Your task to perform on an android device: change the clock display to analog Image 0: 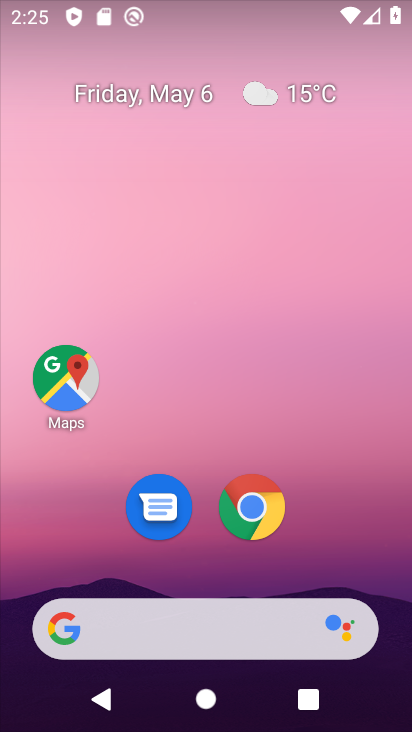
Step 0: press home button
Your task to perform on an android device: change the clock display to analog Image 1: 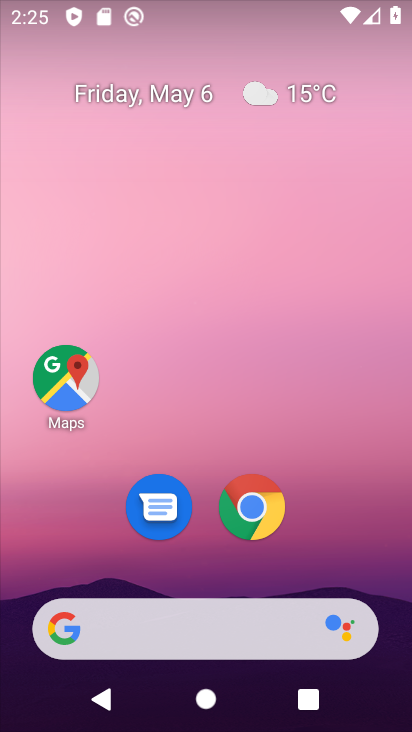
Step 1: drag from (375, 559) to (323, 66)
Your task to perform on an android device: change the clock display to analog Image 2: 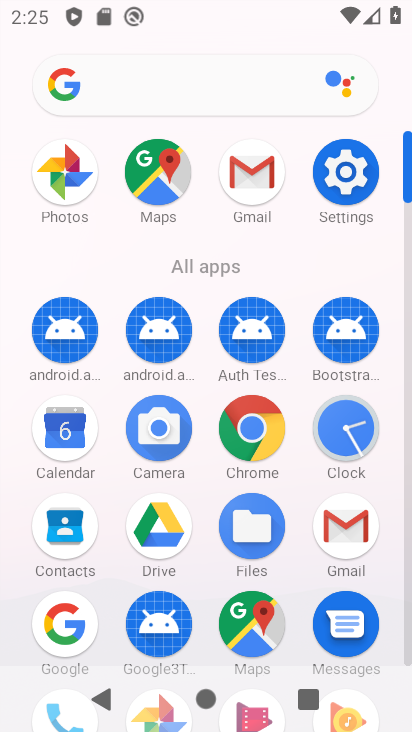
Step 2: click (358, 433)
Your task to perform on an android device: change the clock display to analog Image 3: 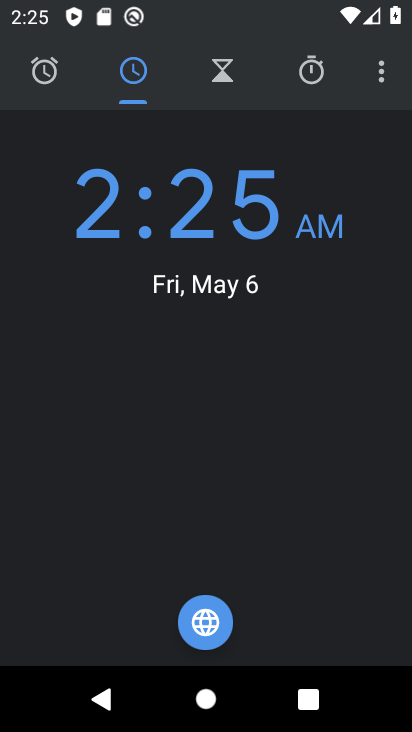
Step 3: click (380, 76)
Your task to perform on an android device: change the clock display to analog Image 4: 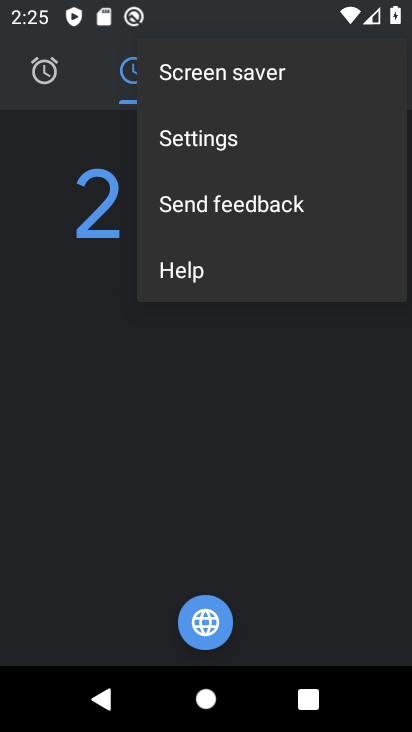
Step 4: click (255, 134)
Your task to perform on an android device: change the clock display to analog Image 5: 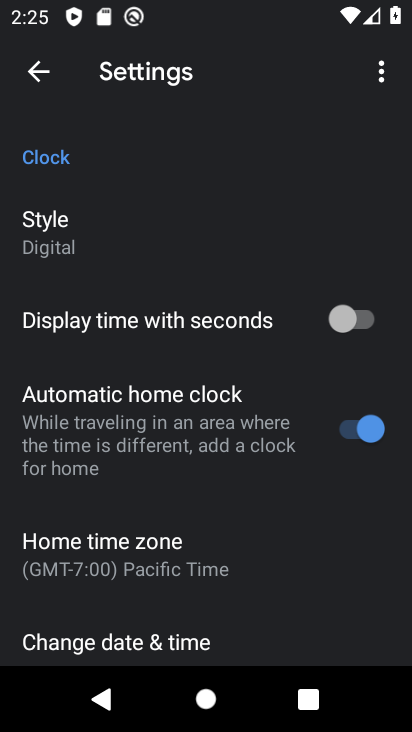
Step 5: click (93, 229)
Your task to perform on an android device: change the clock display to analog Image 6: 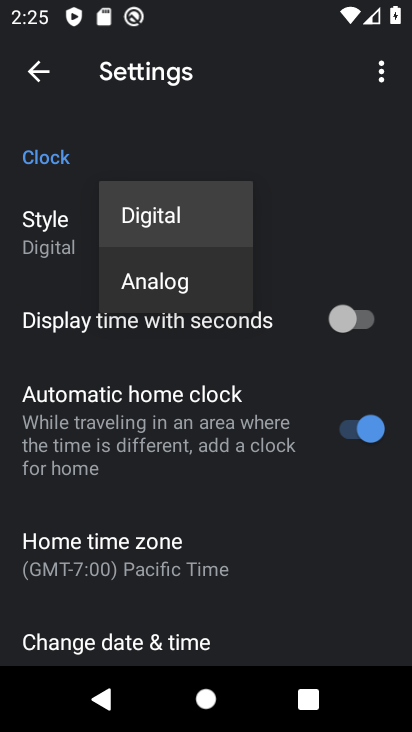
Step 6: click (130, 279)
Your task to perform on an android device: change the clock display to analog Image 7: 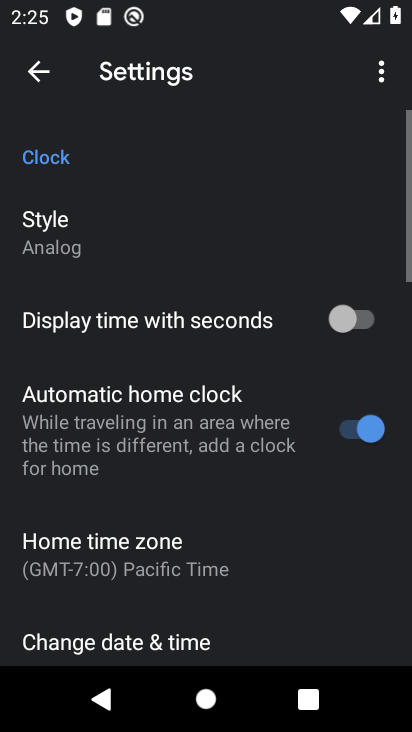
Step 7: task complete